Your task to perform on an android device: Go to display settings Image 0: 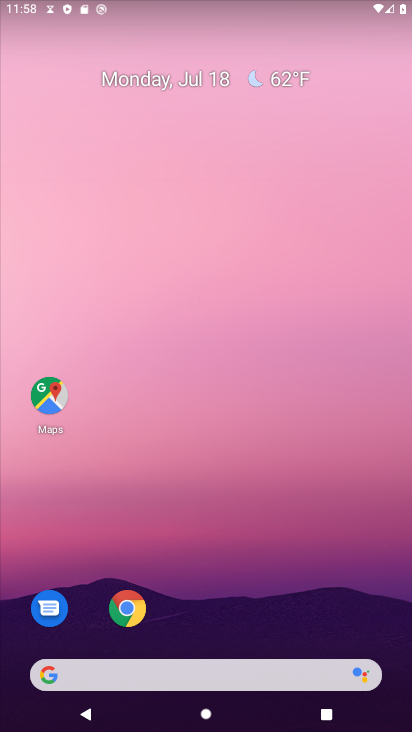
Step 0: drag from (254, 637) to (198, 146)
Your task to perform on an android device: Go to display settings Image 1: 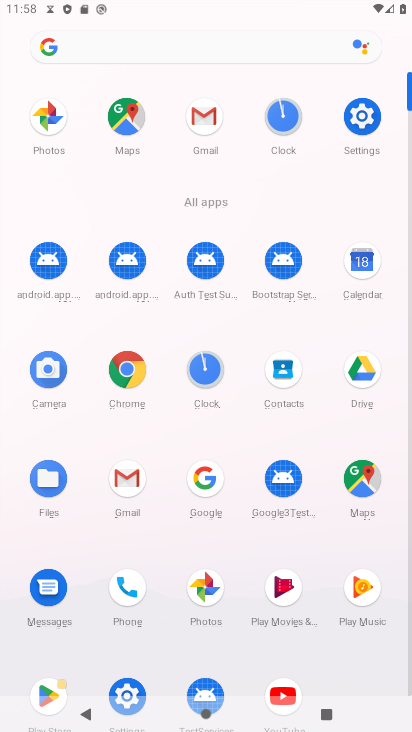
Step 1: click (366, 132)
Your task to perform on an android device: Go to display settings Image 2: 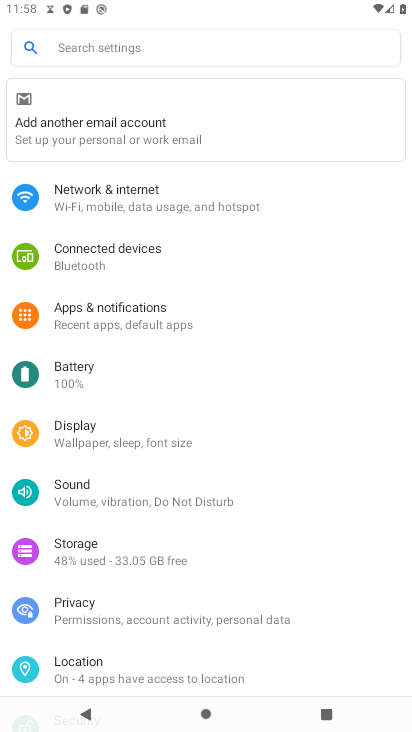
Step 2: click (159, 438)
Your task to perform on an android device: Go to display settings Image 3: 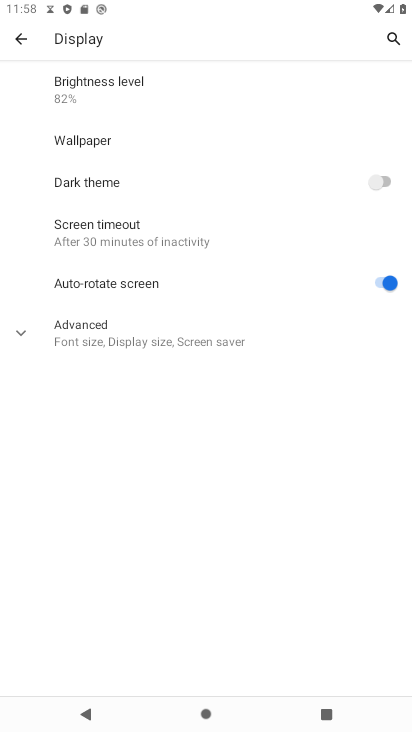
Step 3: task complete